Your task to perform on an android device: change the clock display to analog Image 0: 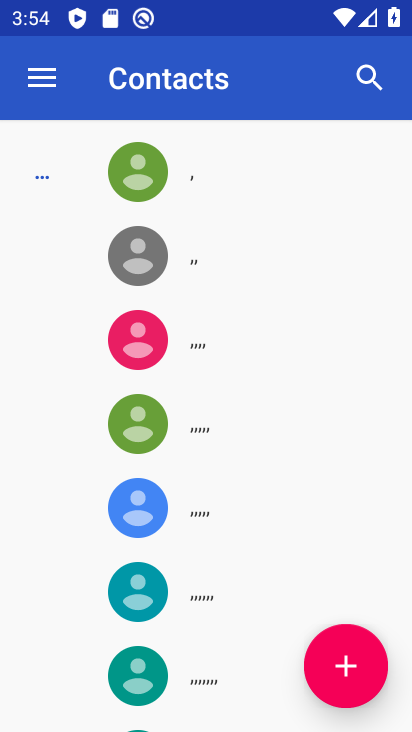
Step 0: press home button
Your task to perform on an android device: change the clock display to analog Image 1: 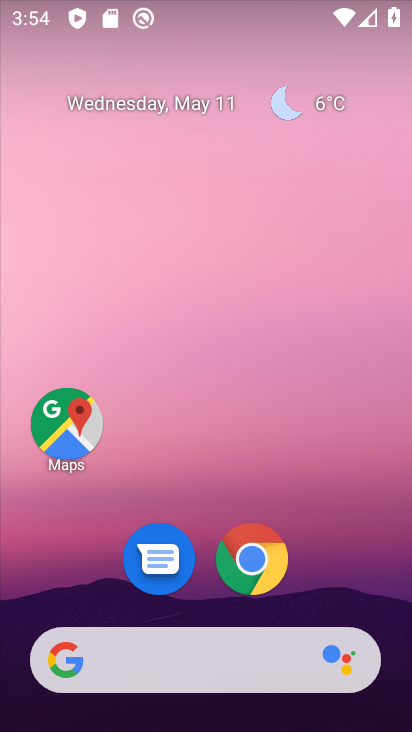
Step 1: drag from (329, 549) to (369, 24)
Your task to perform on an android device: change the clock display to analog Image 2: 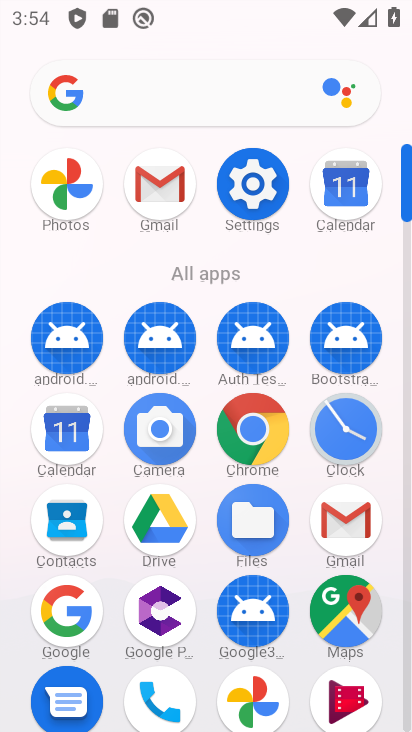
Step 2: click (355, 404)
Your task to perform on an android device: change the clock display to analog Image 3: 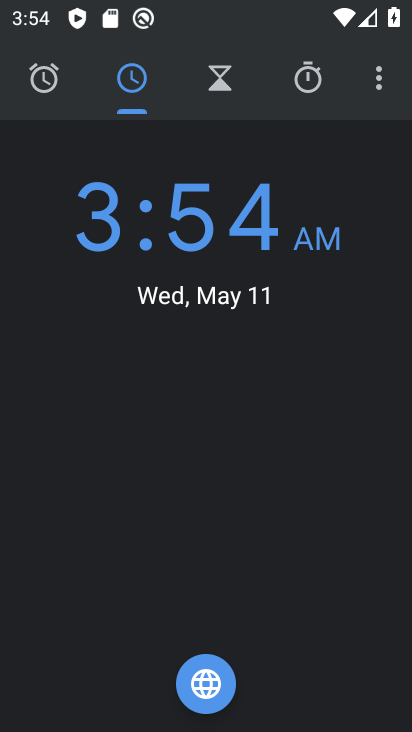
Step 3: click (375, 70)
Your task to perform on an android device: change the clock display to analog Image 4: 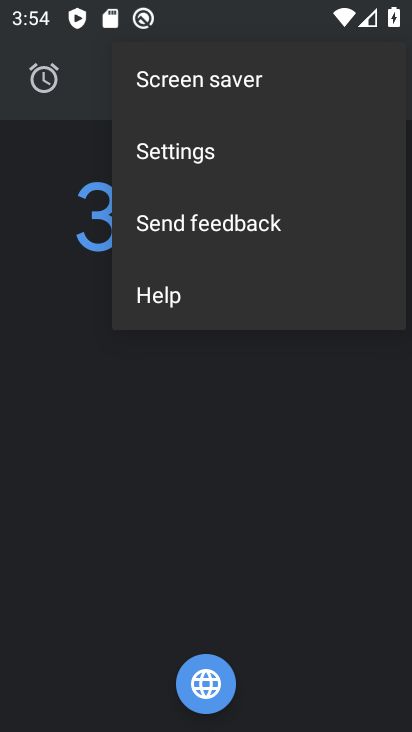
Step 4: click (194, 140)
Your task to perform on an android device: change the clock display to analog Image 5: 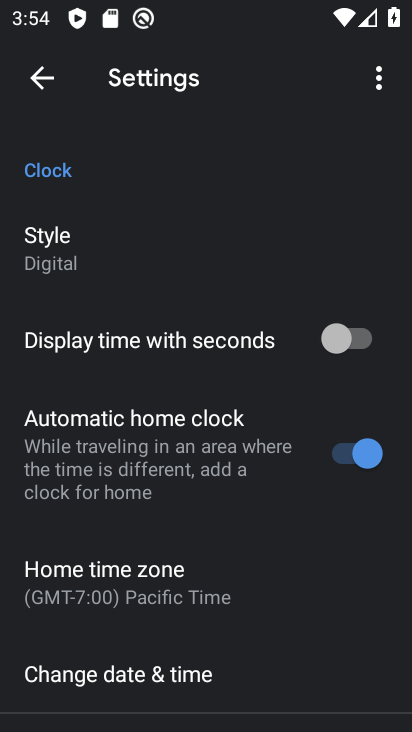
Step 5: drag from (118, 649) to (144, 268)
Your task to perform on an android device: change the clock display to analog Image 6: 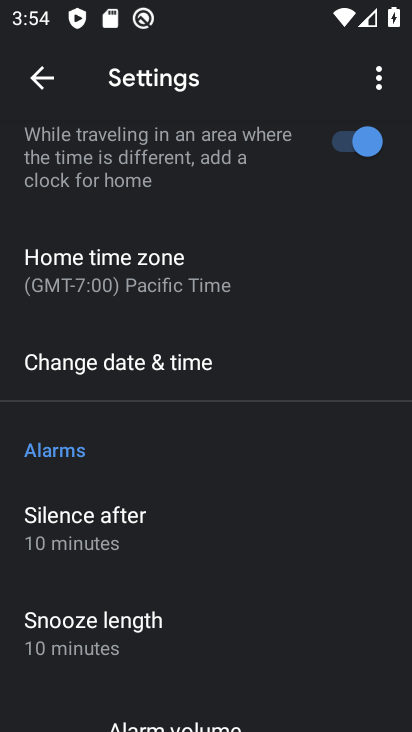
Step 6: click (126, 359)
Your task to perform on an android device: change the clock display to analog Image 7: 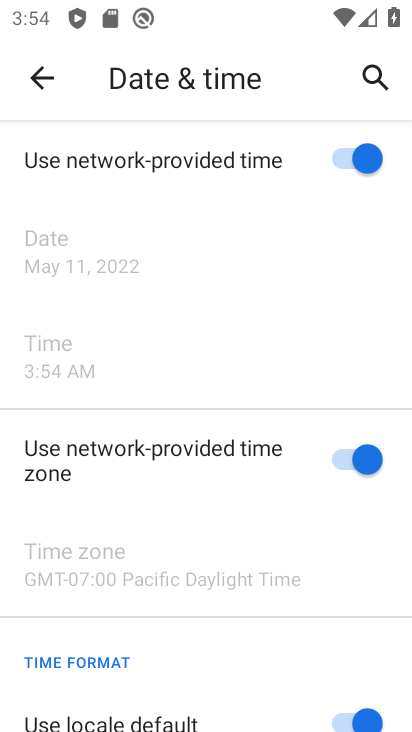
Step 7: drag from (163, 644) to (222, 310)
Your task to perform on an android device: change the clock display to analog Image 8: 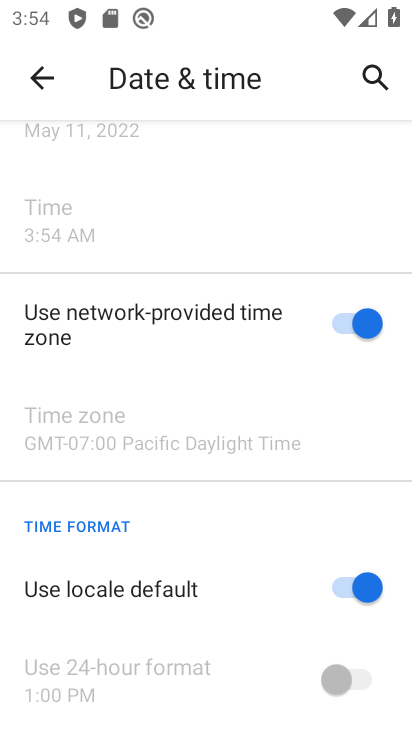
Step 8: drag from (170, 150) to (148, 694)
Your task to perform on an android device: change the clock display to analog Image 9: 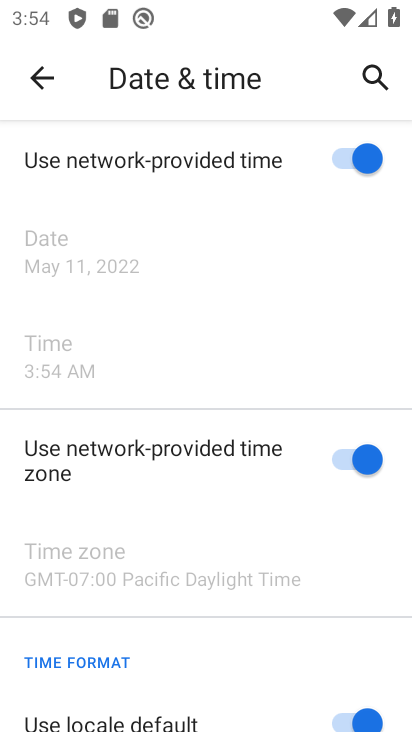
Step 9: click (75, 79)
Your task to perform on an android device: change the clock display to analog Image 10: 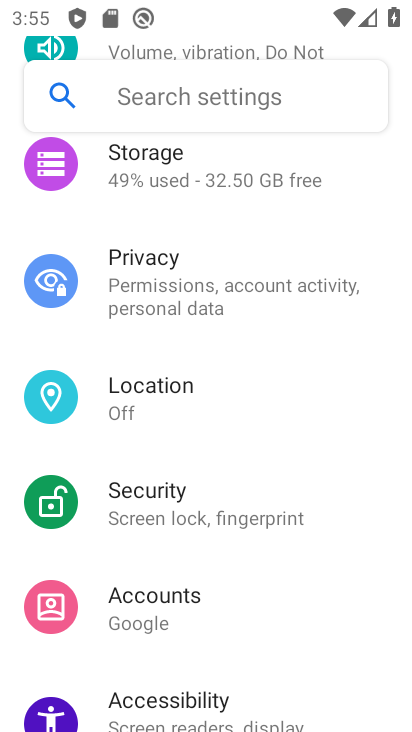
Step 10: press home button
Your task to perform on an android device: change the clock display to analog Image 11: 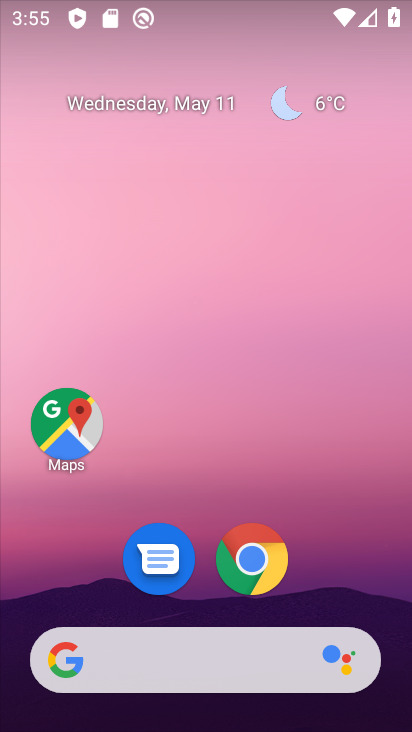
Step 11: drag from (317, 474) to (298, 86)
Your task to perform on an android device: change the clock display to analog Image 12: 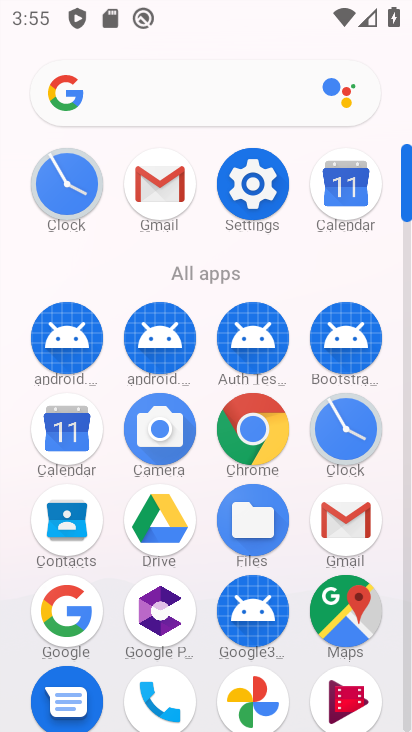
Step 12: click (67, 176)
Your task to perform on an android device: change the clock display to analog Image 13: 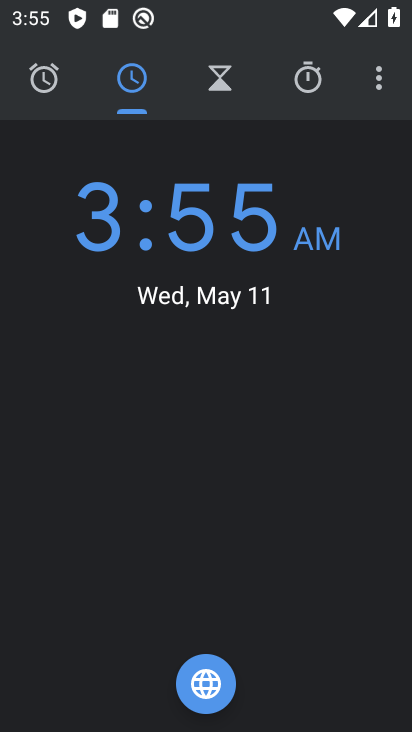
Step 13: click (372, 77)
Your task to perform on an android device: change the clock display to analog Image 14: 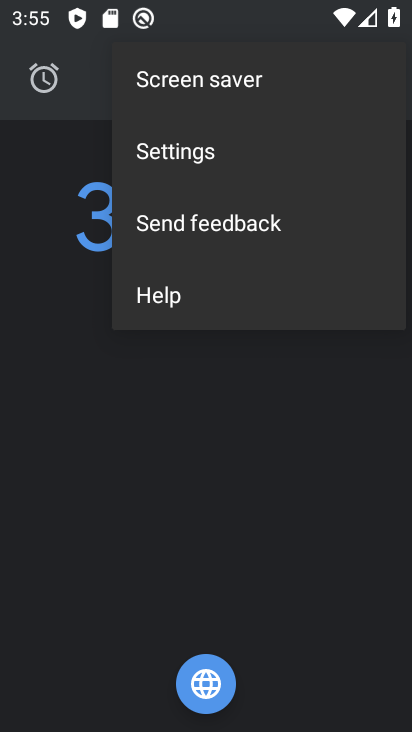
Step 14: click (192, 159)
Your task to perform on an android device: change the clock display to analog Image 15: 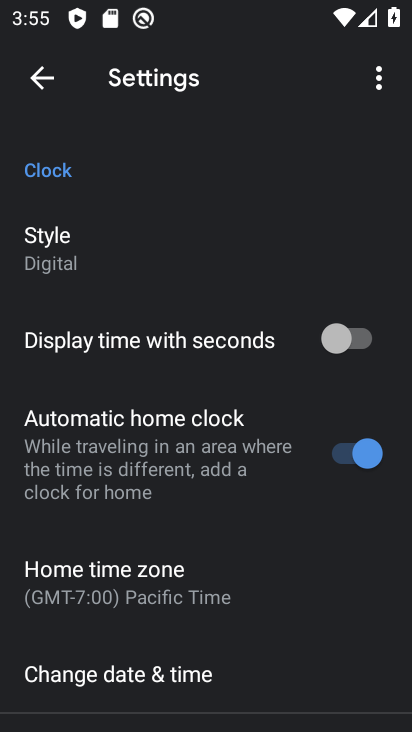
Step 15: click (77, 234)
Your task to perform on an android device: change the clock display to analog Image 16: 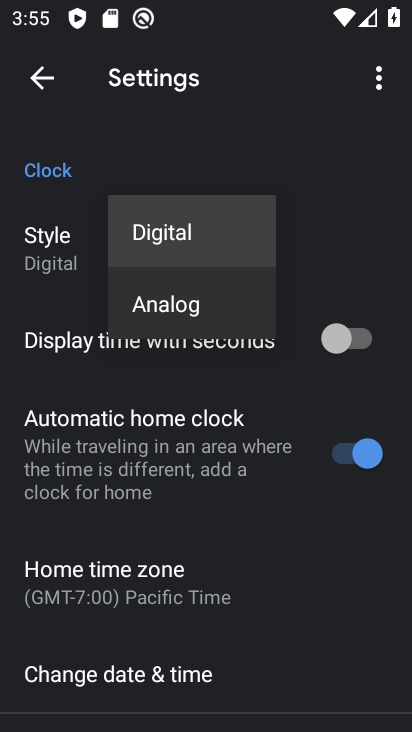
Step 16: click (177, 313)
Your task to perform on an android device: change the clock display to analog Image 17: 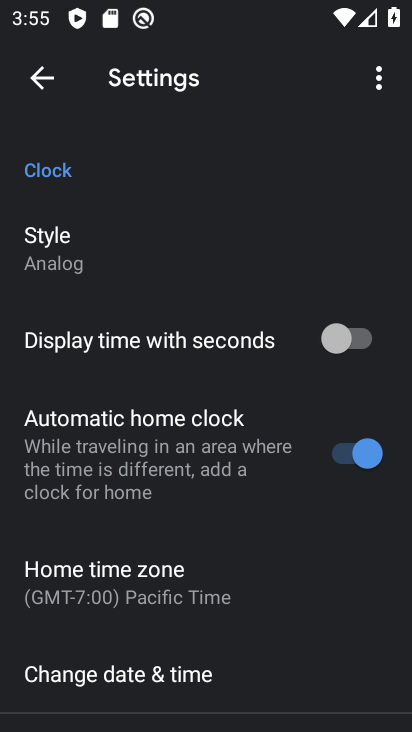
Step 17: task complete